Your task to perform on an android device: change timer sound Image 0: 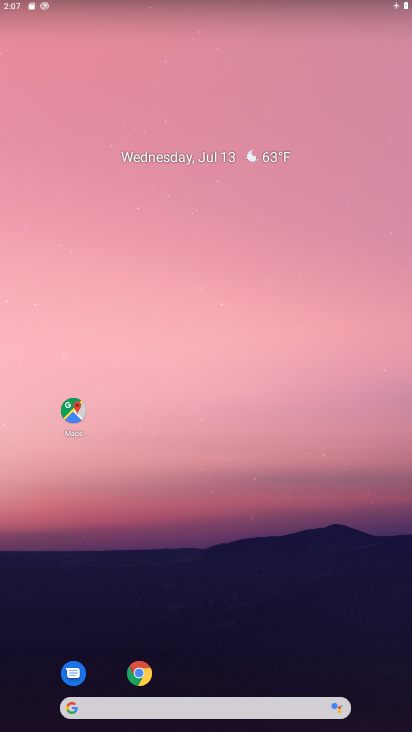
Step 0: drag from (182, 664) to (191, 305)
Your task to perform on an android device: change timer sound Image 1: 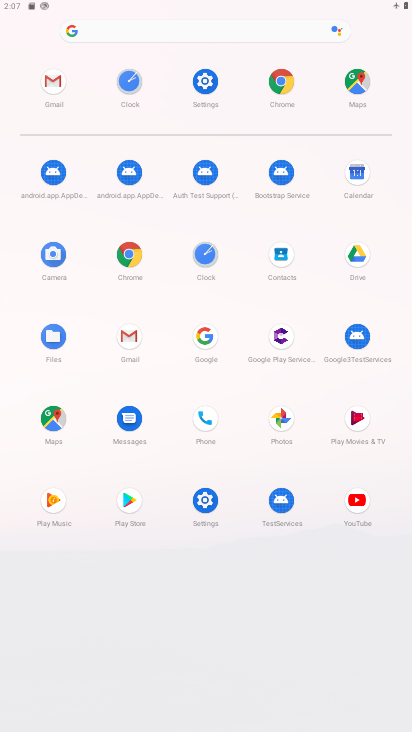
Step 1: click (197, 258)
Your task to perform on an android device: change timer sound Image 2: 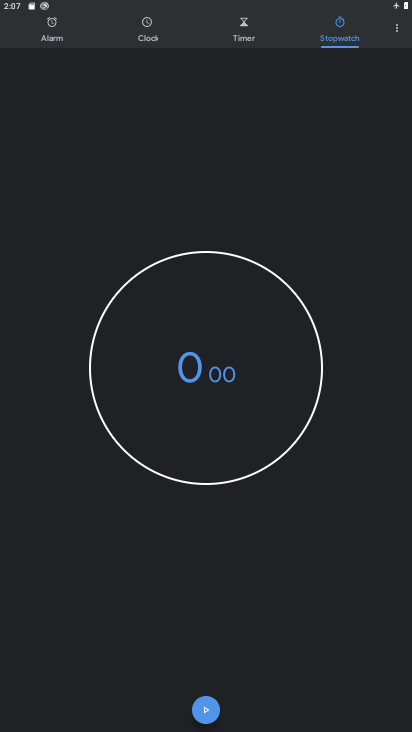
Step 2: click (386, 21)
Your task to perform on an android device: change timer sound Image 3: 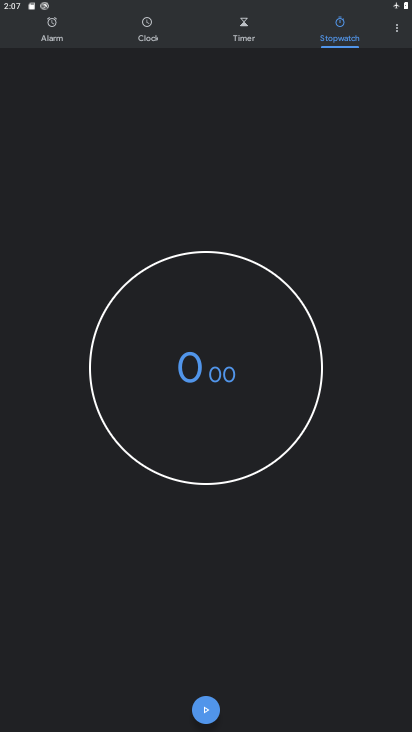
Step 3: click (397, 28)
Your task to perform on an android device: change timer sound Image 4: 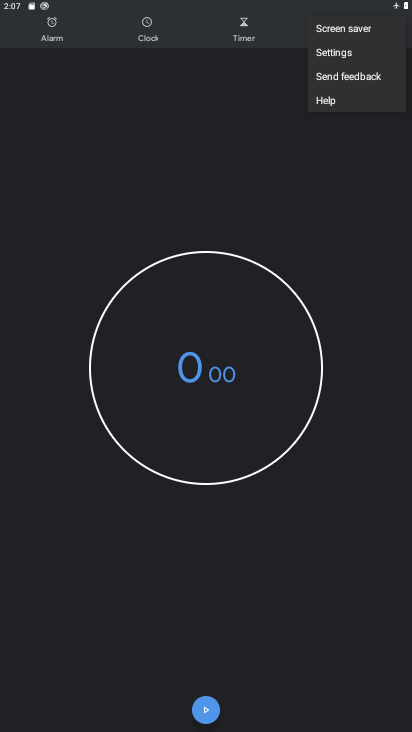
Step 4: click (350, 57)
Your task to perform on an android device: change timer sound Image 5: 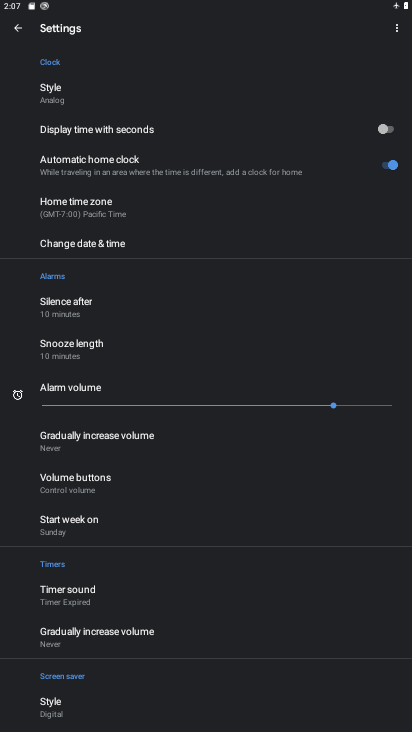
Step 5: click (114, 601)
Your task to perform on an android device: change timer sound Image 6: 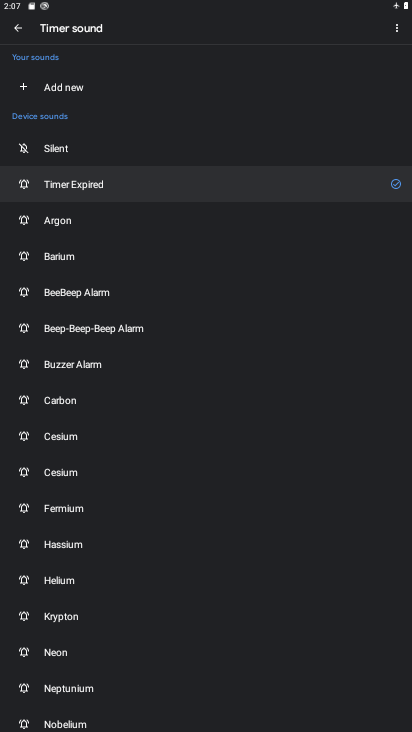
Step 6: click (68, 505)
Your task to perform on an android device: change timer sound Image 7: 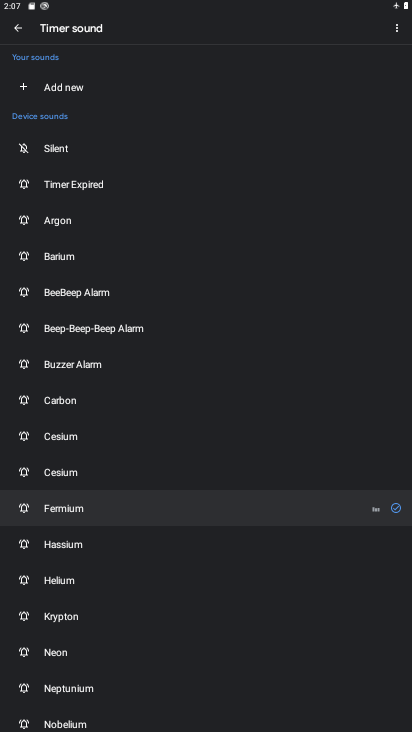
Step 7: task complete